Your task to perform on an android device: Show me the alarms in the clock app Image 0: 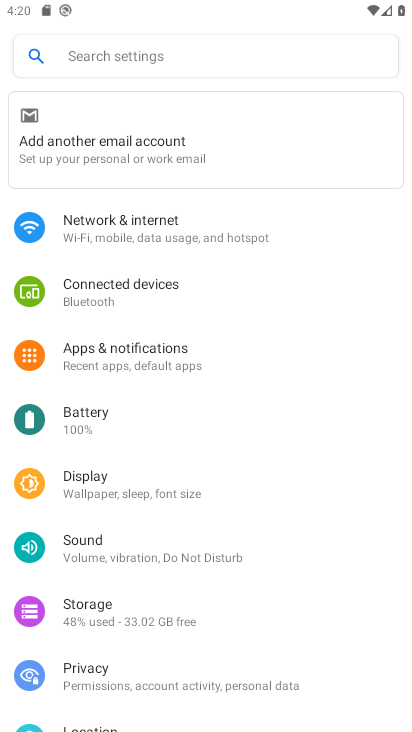
Step 0: press home button
Your task to perform on an android device: Show me the alarms in the clock app Image 1: 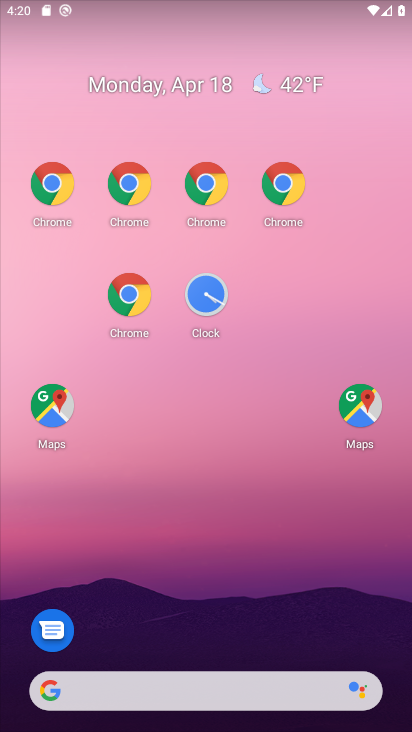
Step 1: drag from (276, 458) to (173, 17)
Your task to perform on an android device: Show me the alarms in the clock app Image 2: 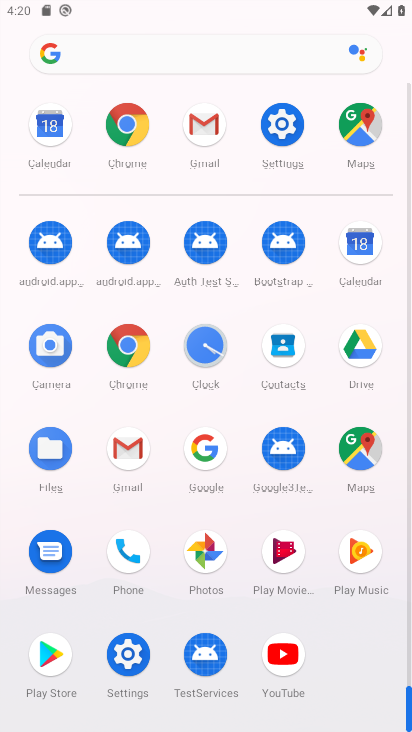
Step 2: click (203, 340)
Your task to perform on an android device: Show me the alarms in the clock app Image 3: 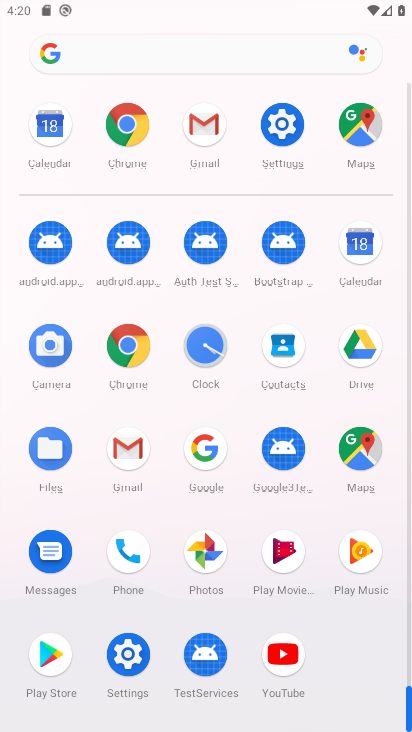
Step 3: click (203, 340)
Your task to perform on an android device: Show me the alarms in the clock app Image 4: 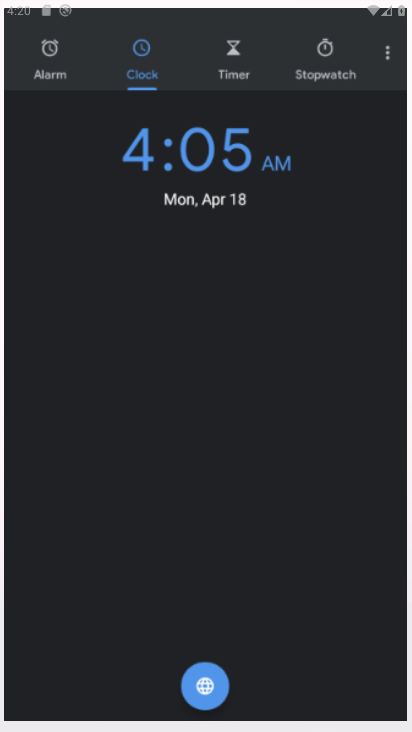
Step 4: click (203, 340)
Your task to perform on an android device: Show me the alarms in the clock app Image 5: 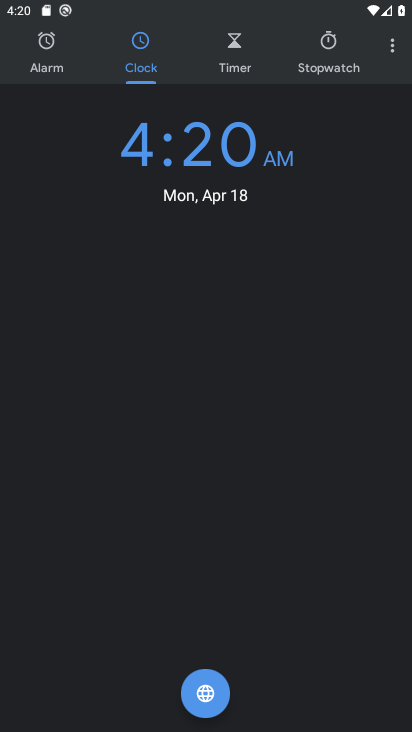
Step 5: click (35, 58)
Your task to perform on an android device: Show me the alarms in the clock app Image 6: 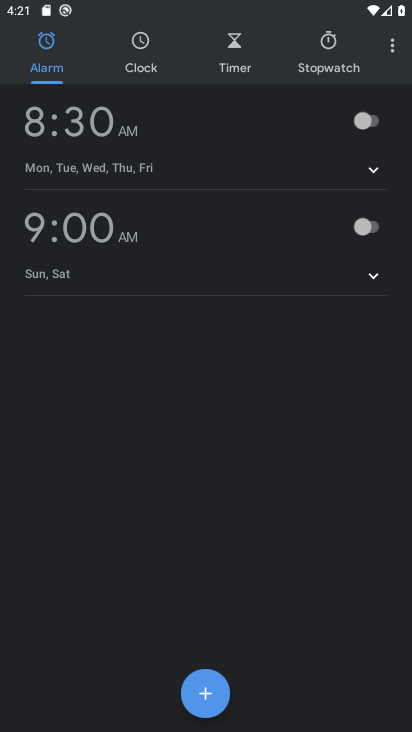
Step 6: click (368, 118)
Your task to perform on an android device: Show me the alarms in the clock app Image 7: 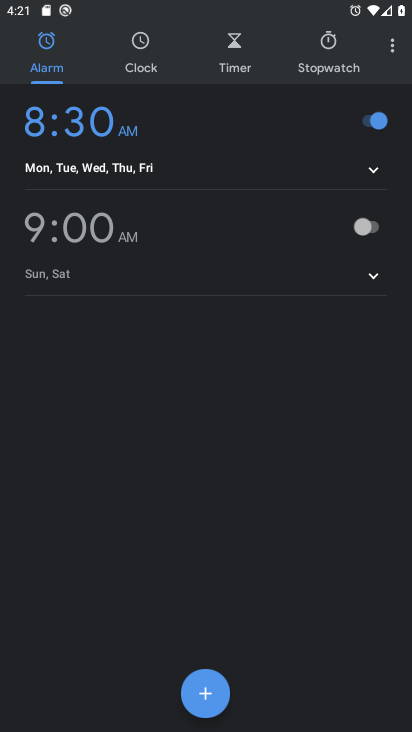
Step 7: task complete